Your task to perform on an android device: Find coffee shops on Maps Image 0: 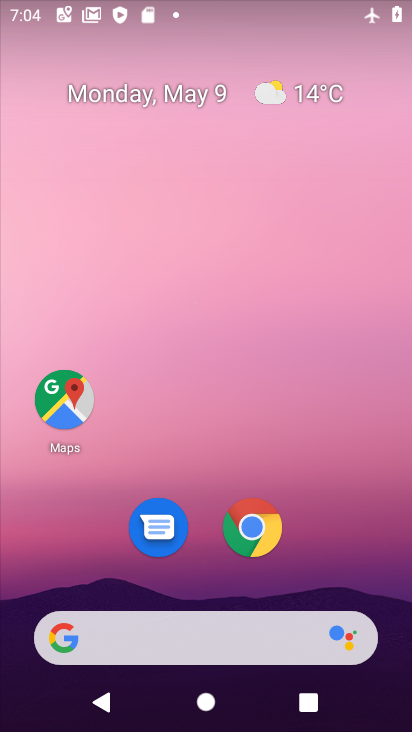
Step 0: click (64, 406)
Your task to perform on an android device: Find coffee shops on Maps Image 1: 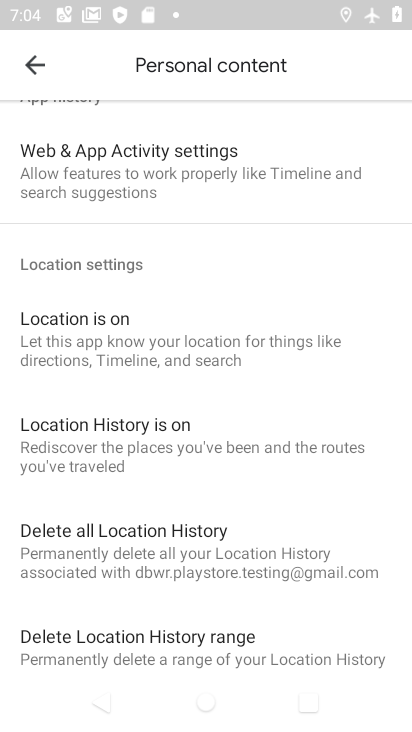
Step 1: press back button
Your task to perform on an android device: Find coffee shops on Maps Image 2: 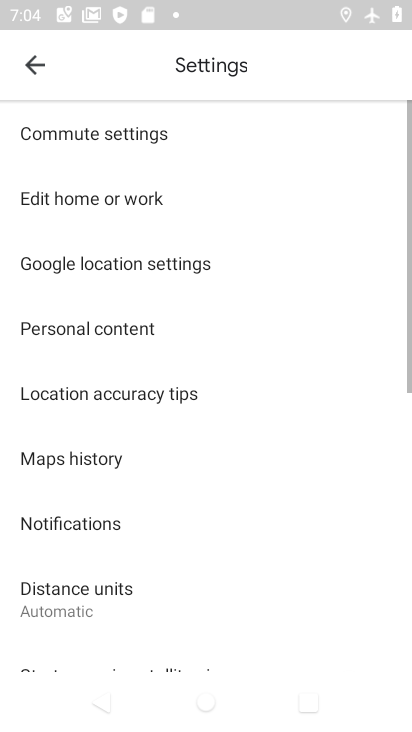
Step 2: press back button
Your task to perform on an android device: Find coffee shops on Maps Image 3: 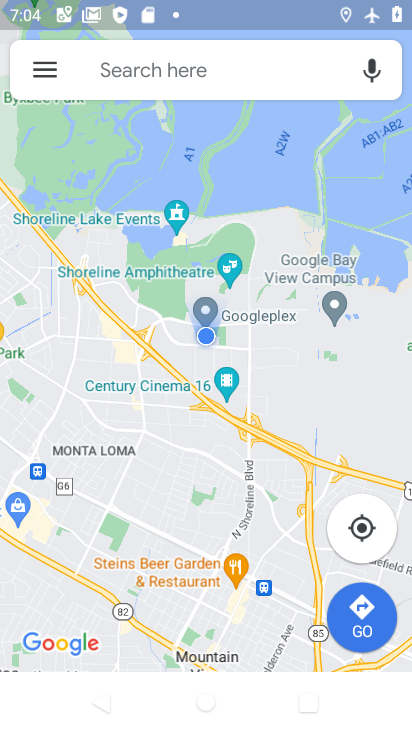
Step 3: click (214, 60)
Your task to perform on an android device: Find coffee shops on Maps Image 4: 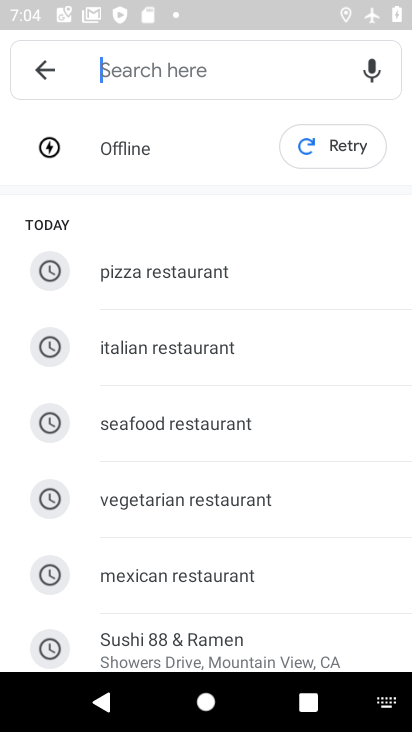
Step 4: type "coffee shopes"
Your task to perform on an android device: Find coffee shops on Maps Image 5: 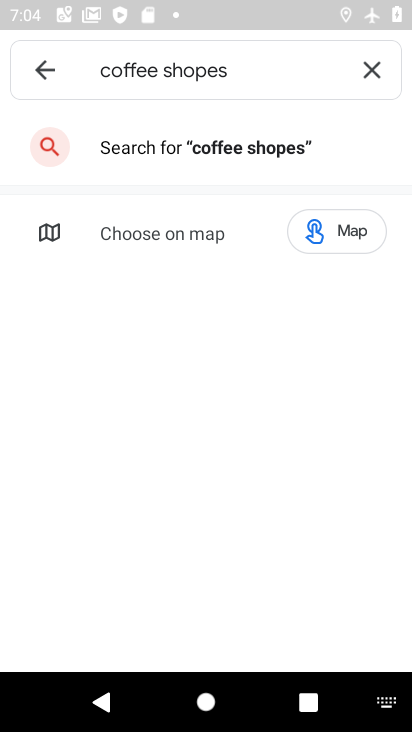
Step 5: task complete